Your task to perform on an android device: refresh tabs in the chrome app Image 0: 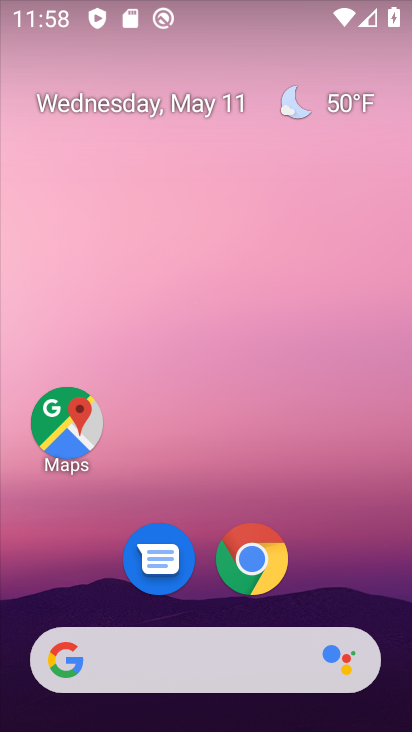
Step 0: drag from (323, 581) to (322, 195)
Your task to perform on an android device: refresh tabs in the chrome app Image 1: 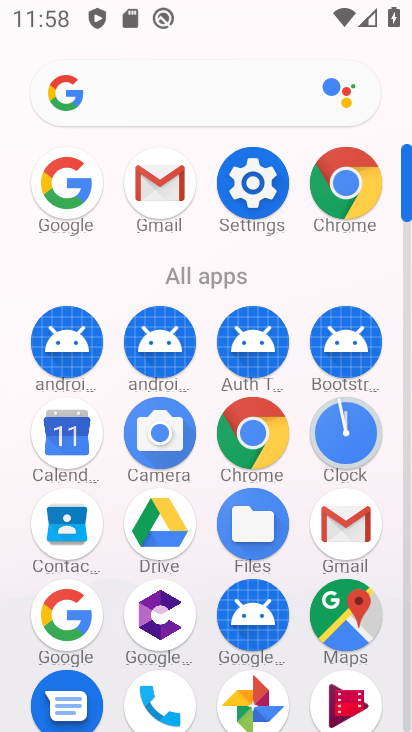
Step 1: click (338, 213)
Your task to perform on an android device: refresh tabs in the chrome app Image 2: 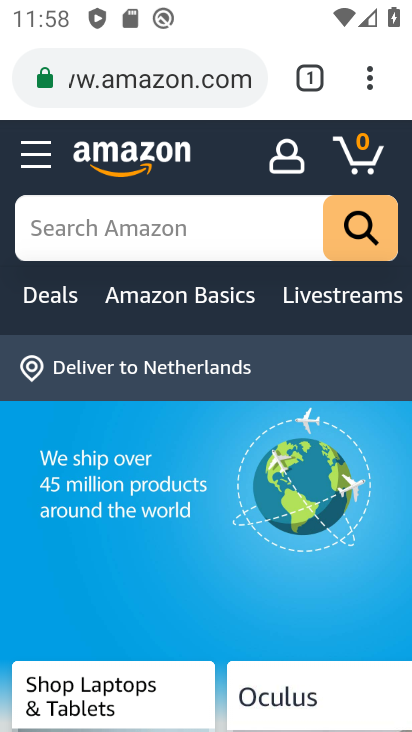
Step 2: click (371, 83)
Your task to perform on an android device: refresh tabs in the chrome app Image 3: 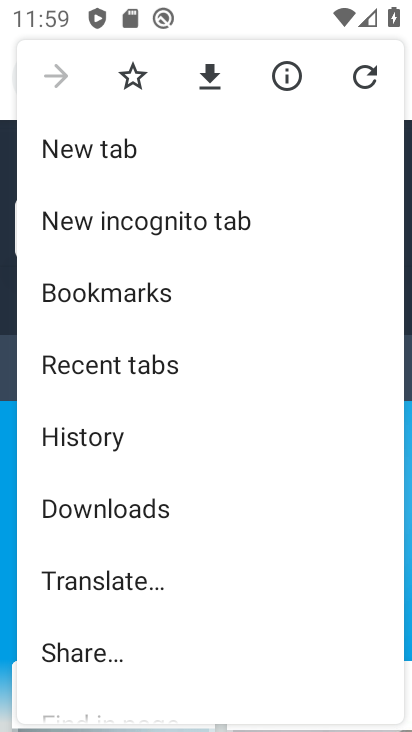
Step 3: click (372, 78)
Your task to perform on an android device: refresh tabs in the chrome app Image 4: 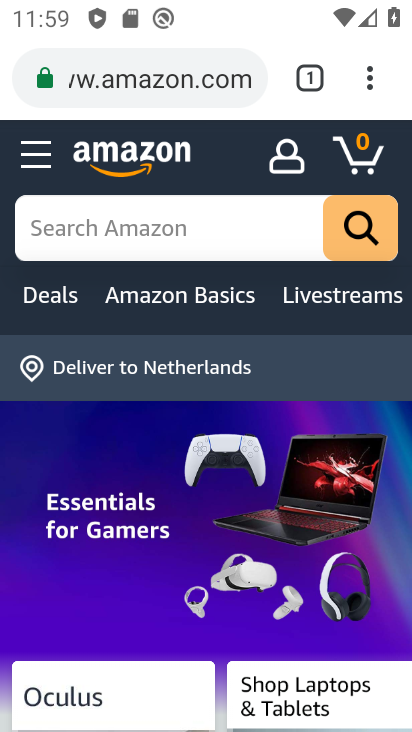
Step 4: task complete